Your task to perform on an android device: What's on my calendar today? Image 0: 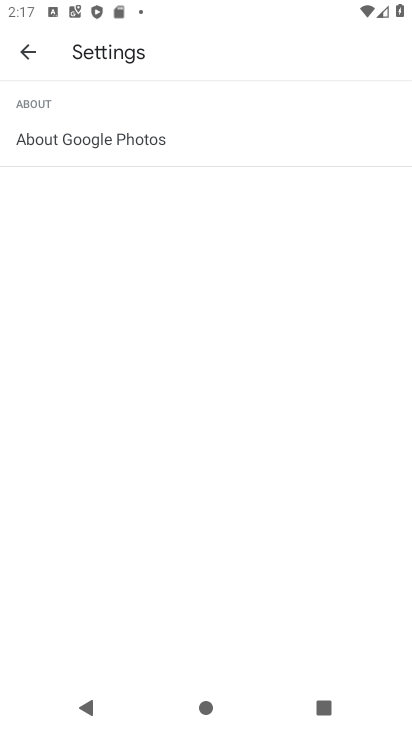
Step 0: press home button
Your task to perform on an android device: What's on my calendar today? Image 1: 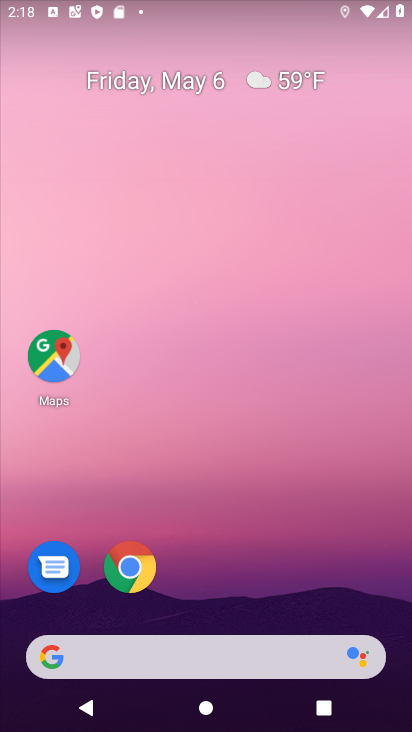
Step 1: drag from (380, 616) to (334, 89)
Your task to perform on an android device: What's on my calendar today? Image 2: 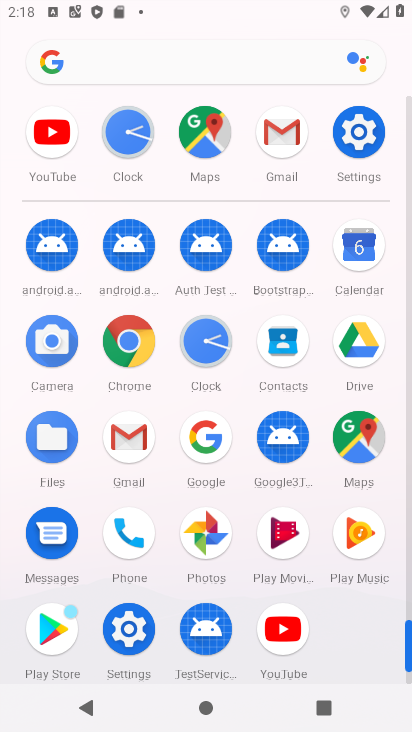
Step 2: click (358, 243)
Your task to perform on an android device: What's on my calendar today? Image 3: 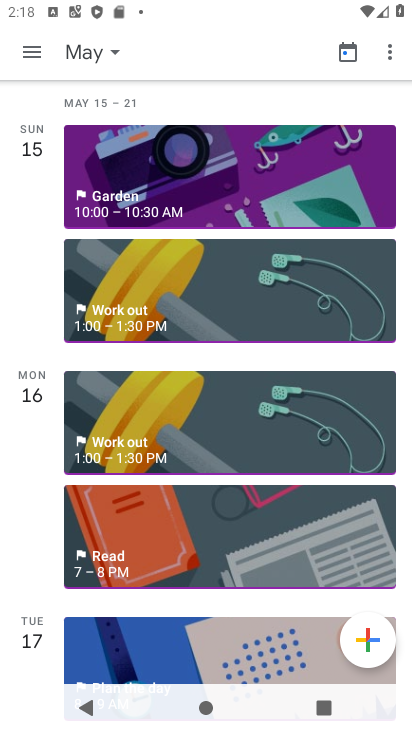
Step 3: click (27, 49)
Your task to perform on an android device: What's on my calendar today? Image 4: 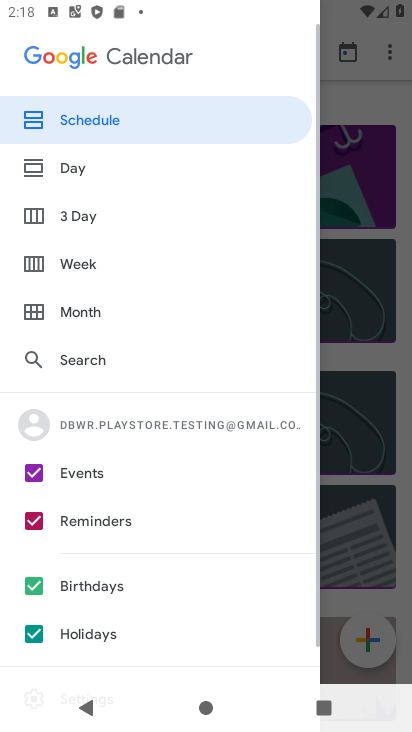
Step 4: click (70, 168)
Your task to perform on an android device: What's on my calendar today? Image 5: 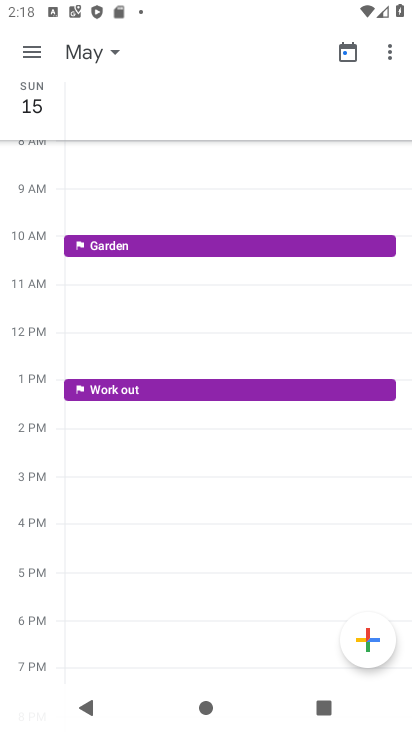
Step 5: task complete